Your task to perform on an android device: turn on location history Image 0: 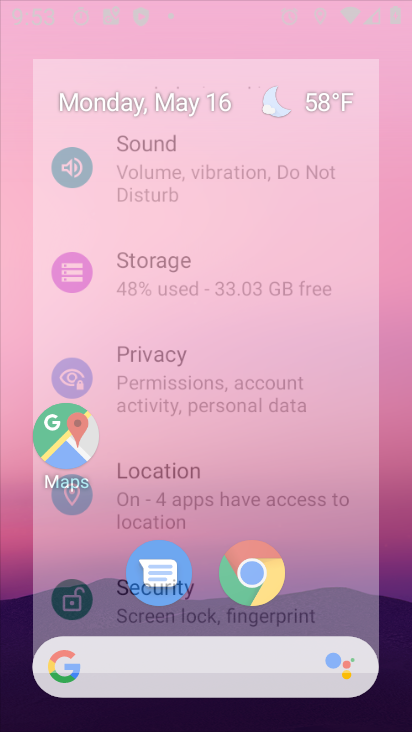
Step 0: drag from (364, 722) to (301, 151)
Your task to perform on an android device: turn on location history Image 1: 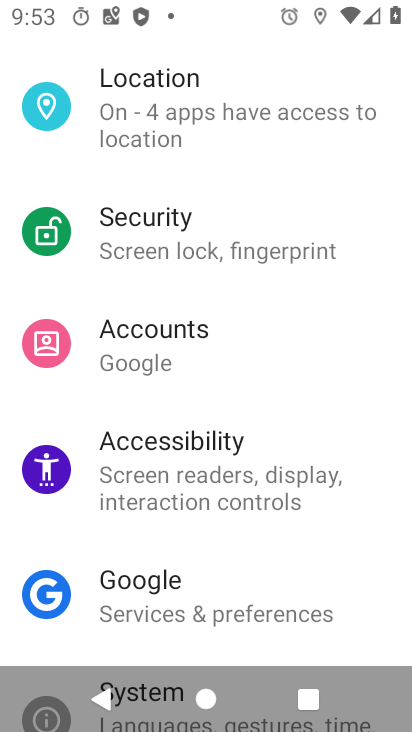
Step 1: press back button
Your task to perform on an android device: turn on location history Image 2: 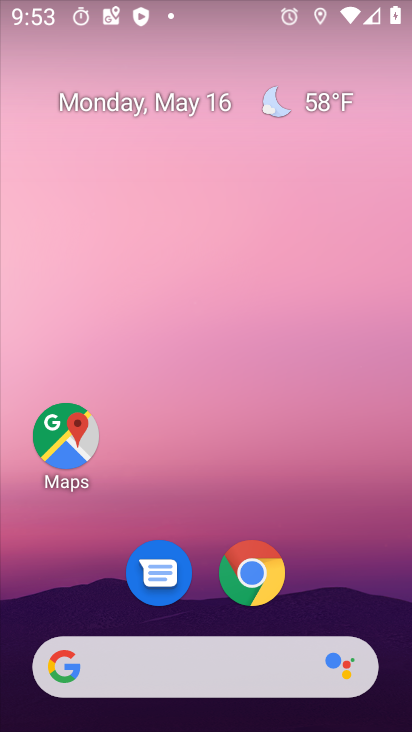
Step 2: drag from (390, 618) to (179, 197)
Your task to perform on an android device: turn on location history Image 3: 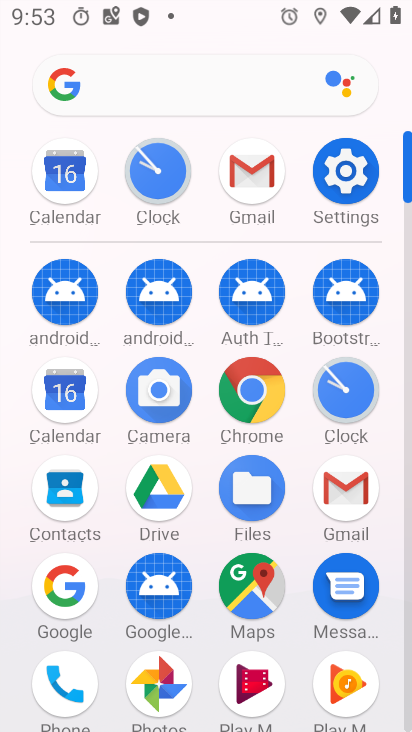
Step 3: click (254, 576)
Your task to perform on an android device: turn on location history Image 4: 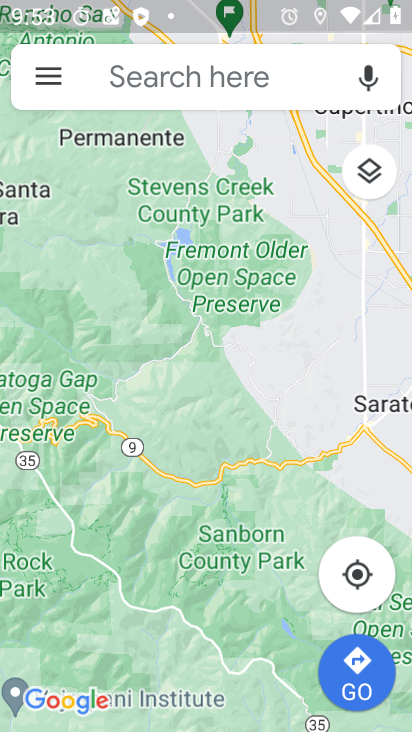
Step 4: click (60, 81)
Your task to perform on an android device: turn on location history Image 5: 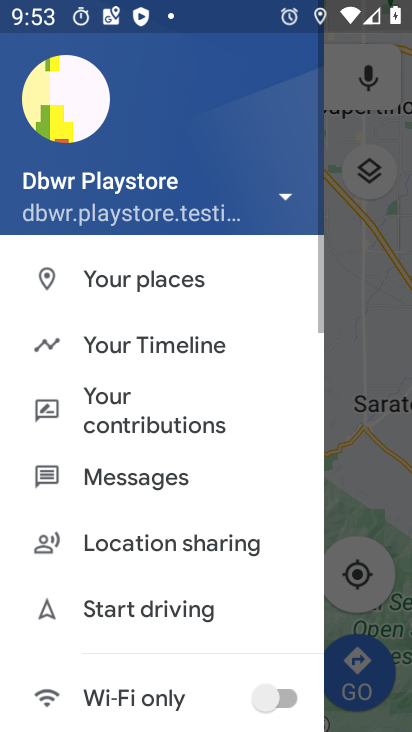
Step 5: click (131, 338)
Your task to perform on an android device: turn on location history Image 6: 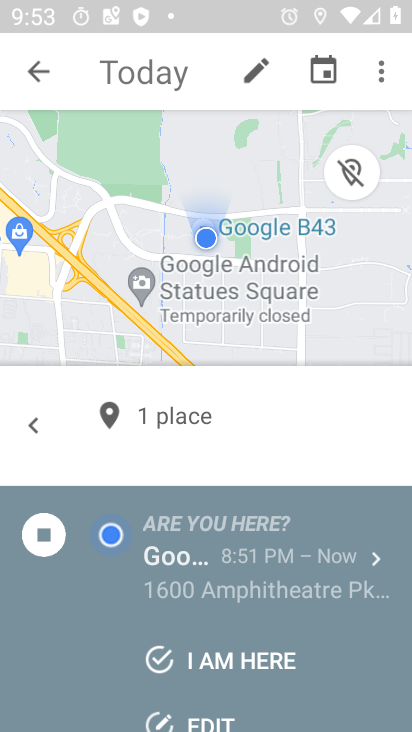
Step 6: click (376, 62)
Your task to perform on an android device: turn on location history Image 7: 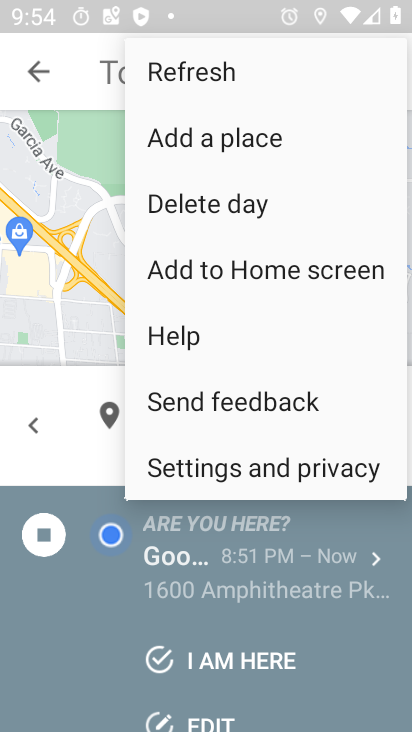
Step 7: click (204, 463)
Your task to perform on an android device: turn on location history Image 8: 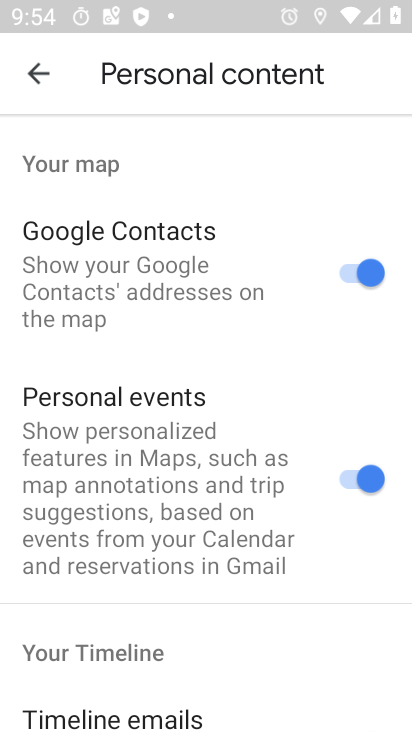
Step 8: drag from (191, 511) to (128, 105)
Your task to perform on an android device: turn on location history Image 9: 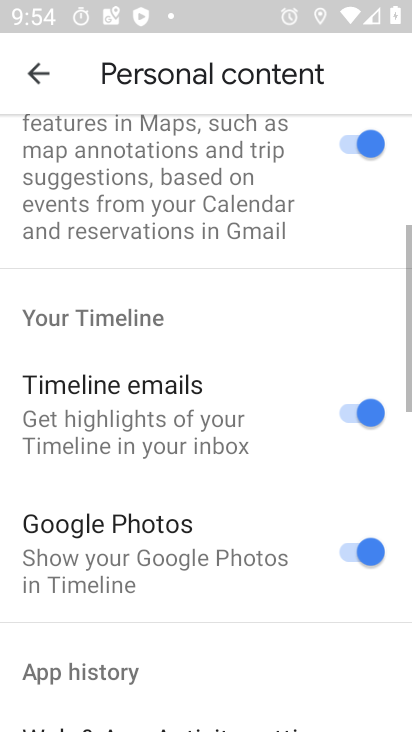
Step 9: drag from (240, 615) to (293, 303)
Your task to perform on an android device: turn on location history Image 10: 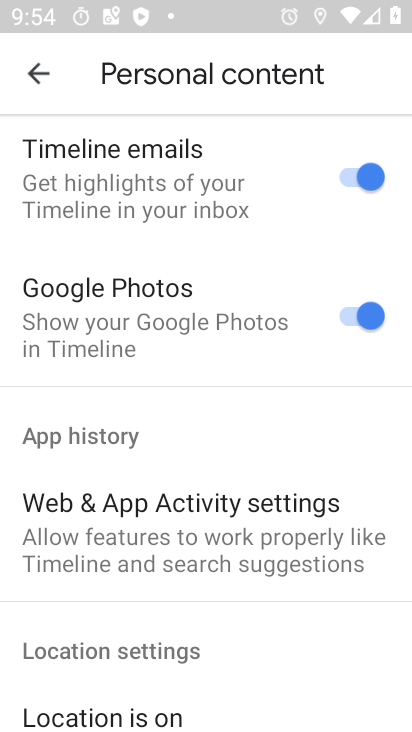
Step 10: drag from (217, 639) to (181, 13)
Your task to perform on an android device: turn on location history Image 11: 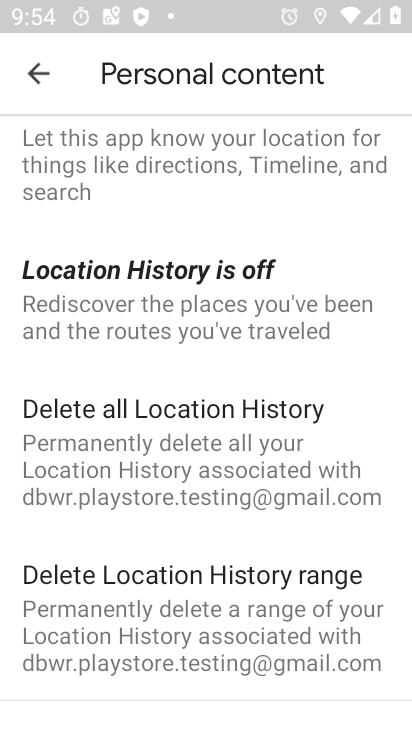
Step 11: click (183, 290)
Your task to perform on an android device: turn on location history Image 12: 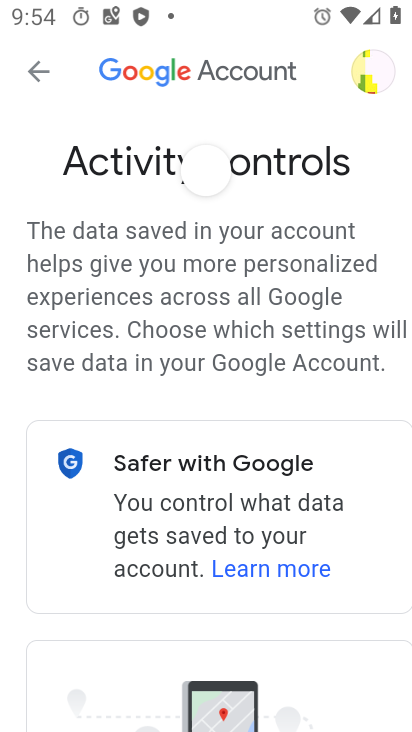
Step 12: drag from (279, 554) to (219, 9)
Your task to perform on an android device: turn on location history Image 13: 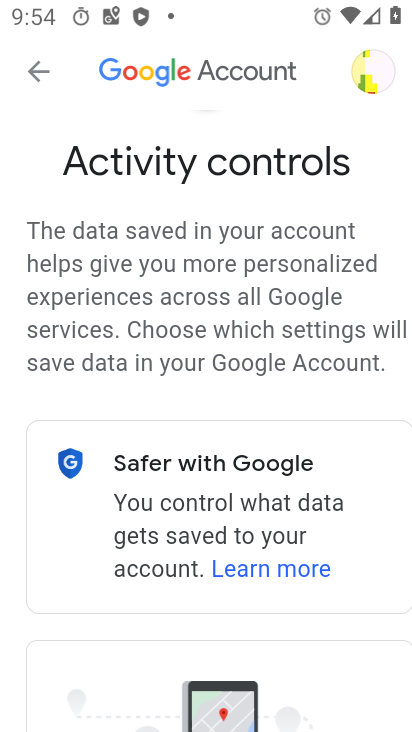
Step 13: drag from (227, 446) to (214, 175)
Your task to perform on an android device: turn on location history Image 14: 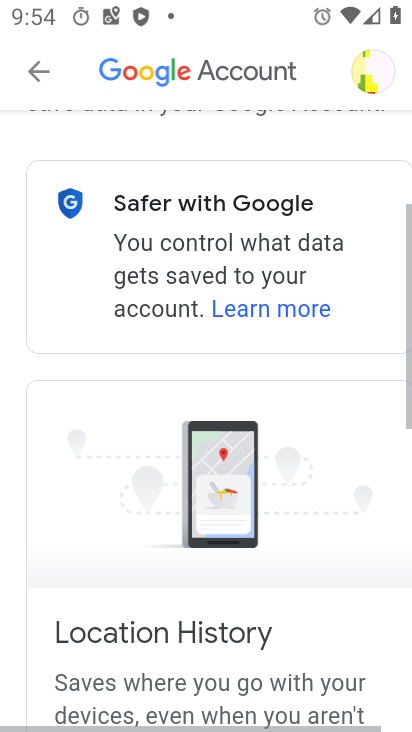
Step 14: click (240, 529)
Your task to perform on an android device: turn on location history Image 15: 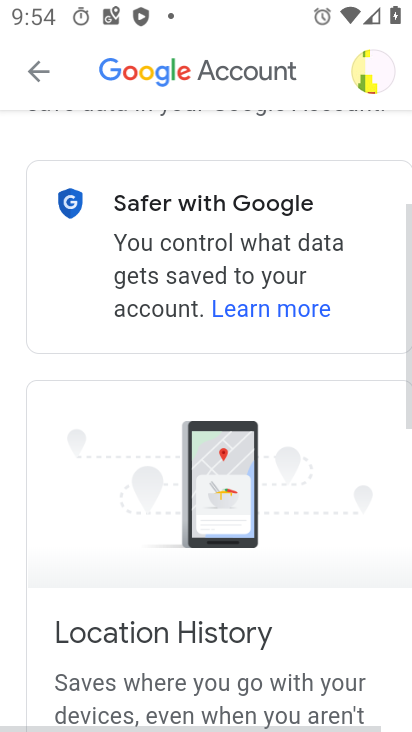
Step 15: drag from (230, 455) to (203, 20)
Your task to perform on an android device: turn on location history Image 16: 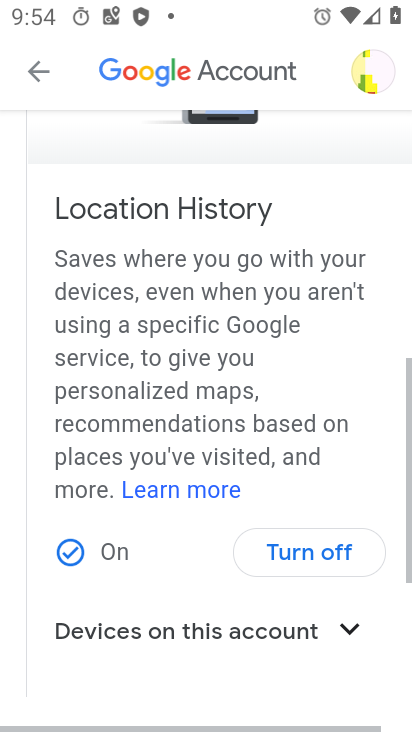
Step 16: drag from (237, 589) to (235, 38)
Your task to perform on an android device: turn on location history Image 17: 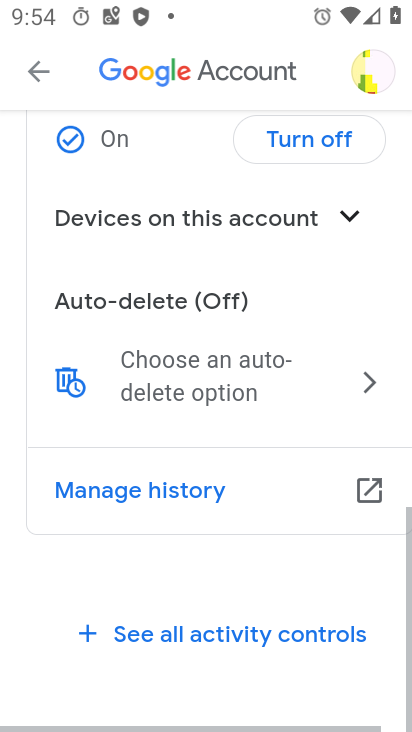
Step 17: drag from (285, 497) to (278, 14)
Your task to perform on an android device: turn on location history Image 18: 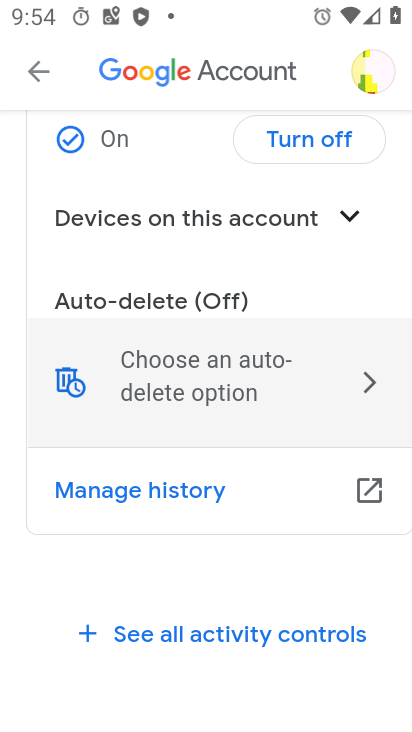
Step 18: click (67, 143)
Your task to perform on an android device: turn on location history Image 19: 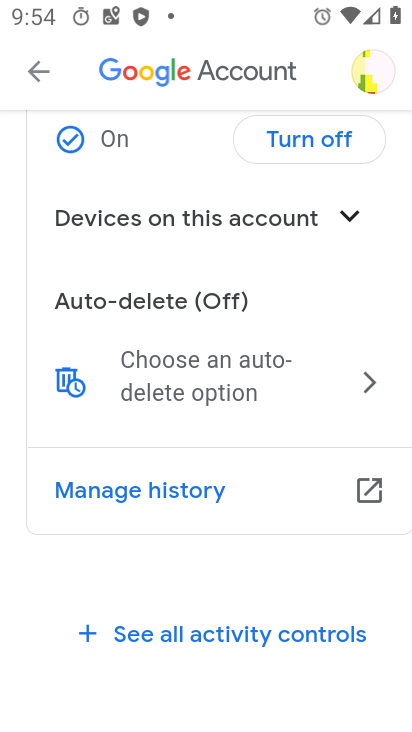
Step 19: click (67, 143)
Your task to perform on an android device: turn on location history Image 20: 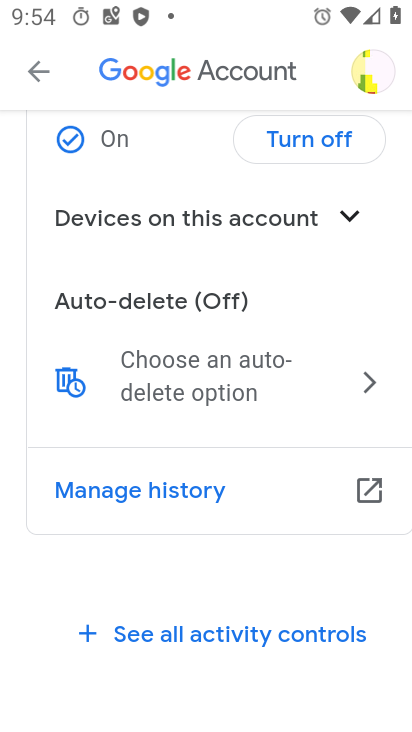
Step 20: click (217, 298)
Your task to perform on an android device: turn on location history Image 21: 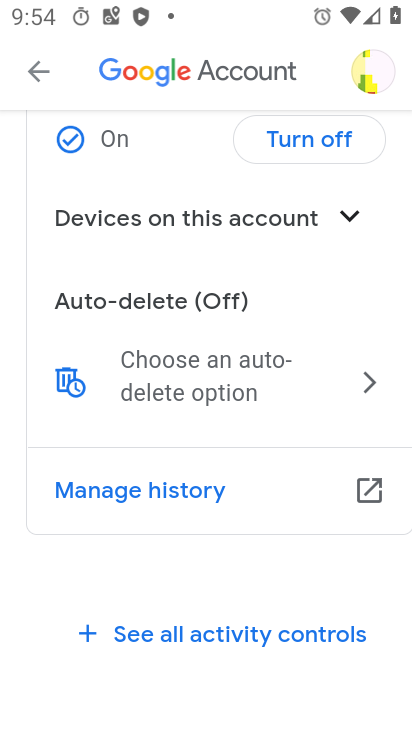
Step 21: task complete